Your task to perform on an android device: View the shopping cart on newegg. Image 0: 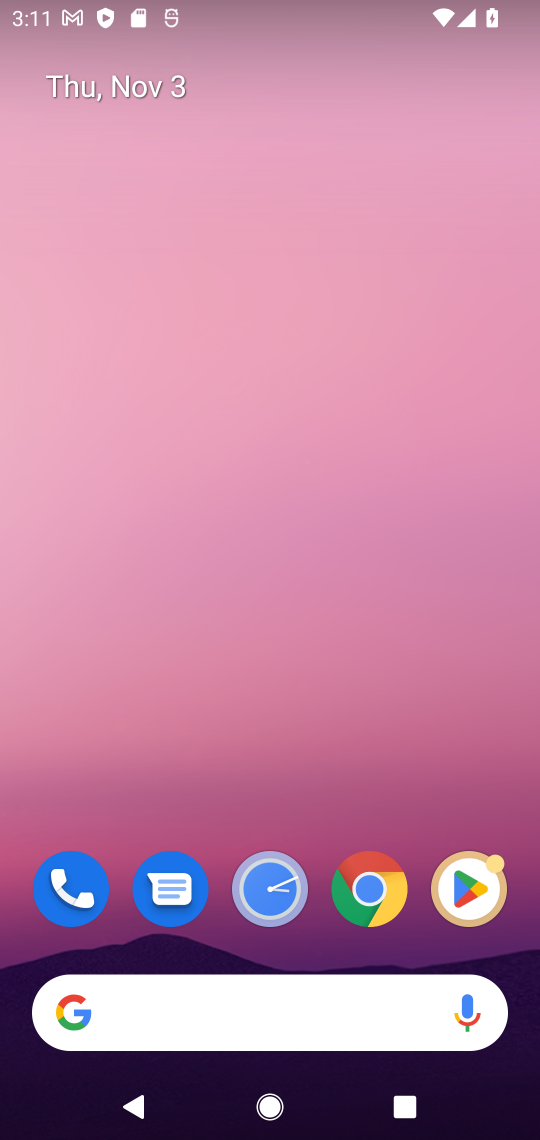
Step 0: task complete